Your task to perform on an android device: Open Google Chrome and open the bookmarks view Image 0: 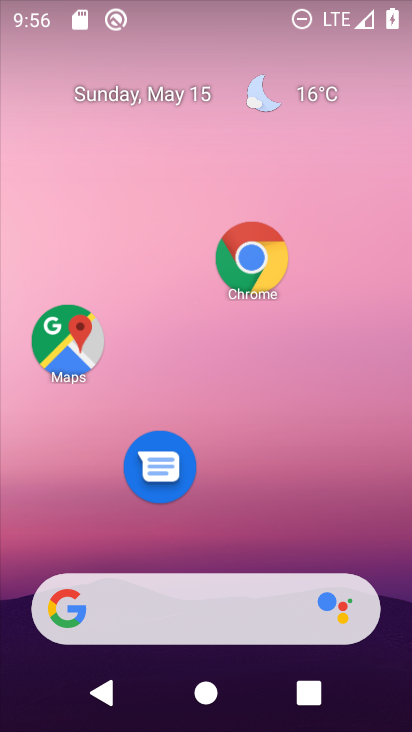
Step 0: click (256, 262)
Your task to perform on an android device: Open Google Chrome and open the bookmarks view Image 1: 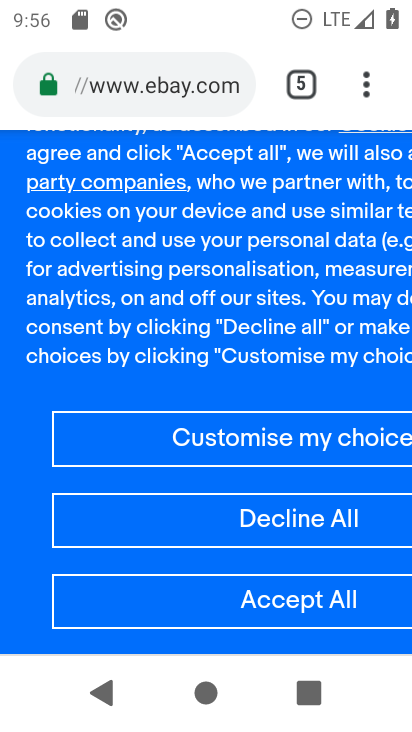
Step 1: click (374, 86)
Your task to perform on an android device: Open Google Chrome and open the bookmarks view Image 2: 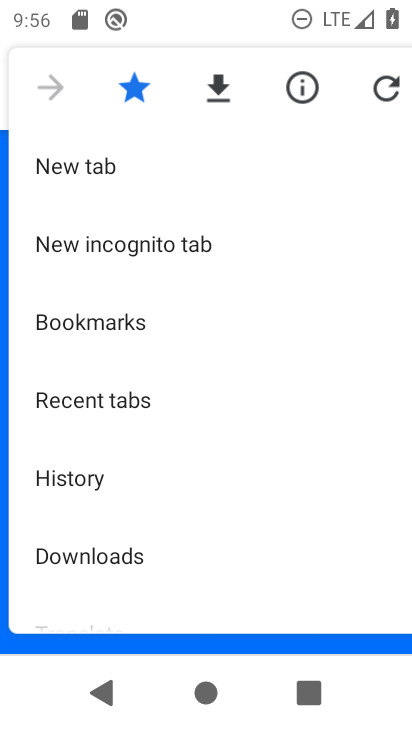
Step 2: click (164, 328)
Your task to perform on an android device: Open Google Chrome and open the bookmarks view Image 3: 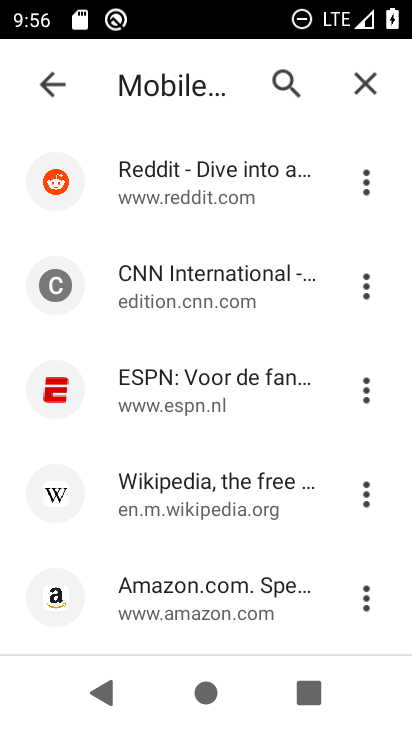
Step 3: task complete